Your task to perform on an android device: move a message to another label in the gmail app Image 0: 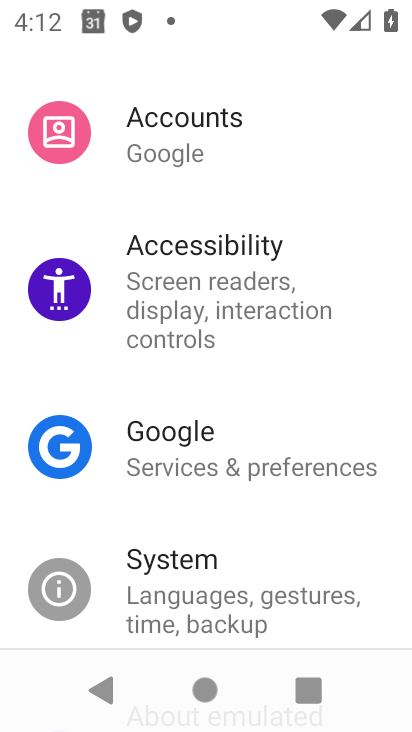
Step 0: press home button
Your task to perform on an android device: move a message to another label in the gmail app Image 1: 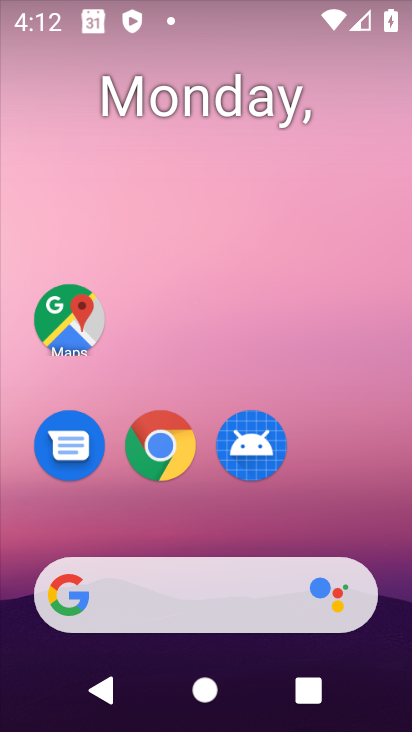
Step 1: drag from (349, 491) to (284, 121)
Your task to perform on an android device: move a message to another label in the gmail app Image 2: 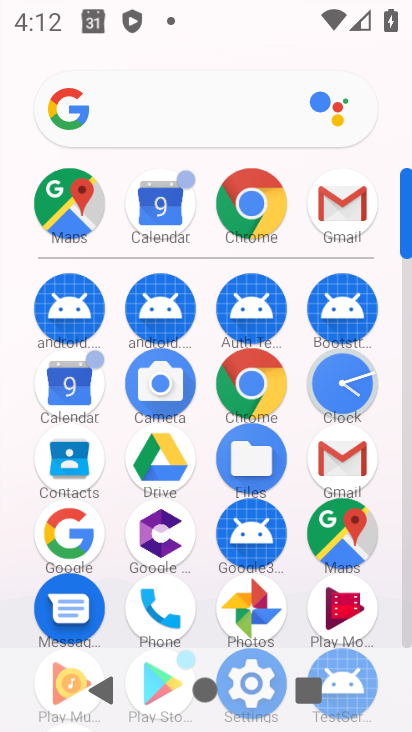
Step 2: click (350, 453)
Your task to perform on an android device: move a message to another label in the gmail app Image 3: 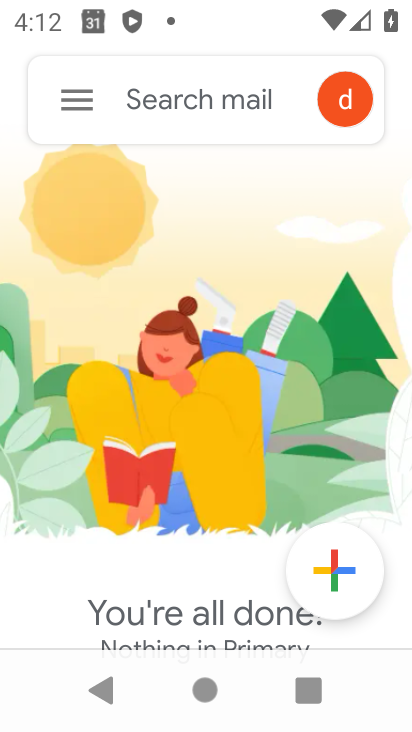
Step 3: click (73, 93)
Your task to perform on an android device: move a message to another label in the gmail app Image 4: 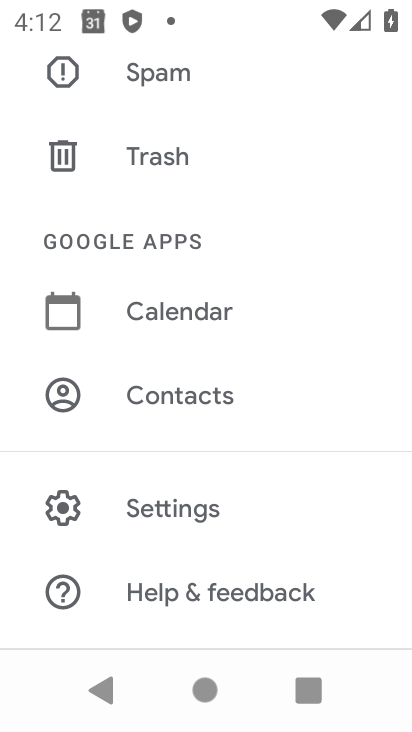
Step 4: task complete